Your task to perform on an android device: open app "AliExpress" (install if not already installed) Image 0: 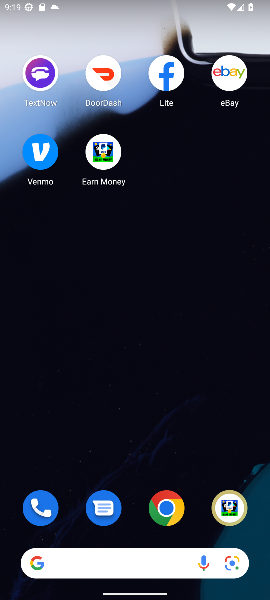
Step 0: press home button
Your task to perform on an android device: open app "AliExpress" (install if not already installed) Image 1: 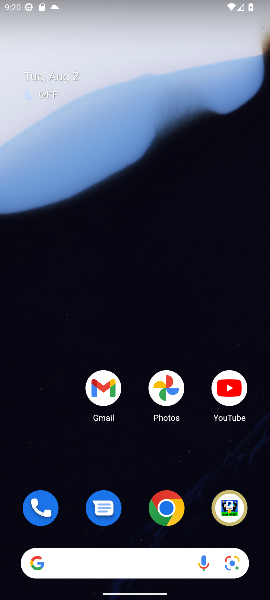
Step 1: drag from (105, 535) to (144, 42)
Your task to perform on an android device: open app "AliExpress" (install if not already installed) Image 2: 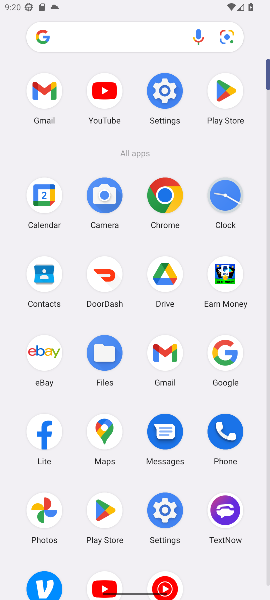
Step 2: click (225, 121)
Your task to perform on an android device: open app "AliExpress" (install if not already installed) Image 3: 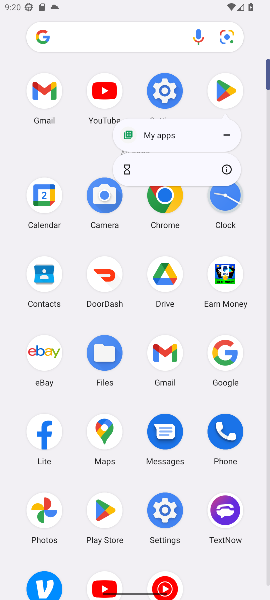
Step 3: click (231, 93)
Your task to perform on an android device: open app "AliExpress" (install if not already installed) Image 4: 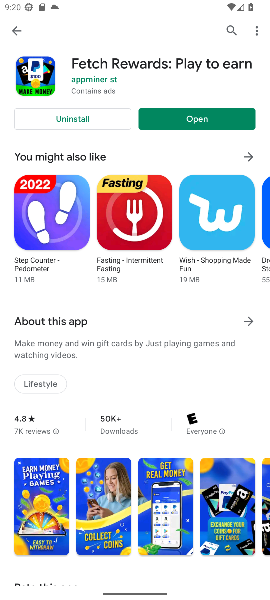
Step 4: click (20, 30)
Your task to perform on an android device: open app "AliExpress" (install if not already installed) Image 5: 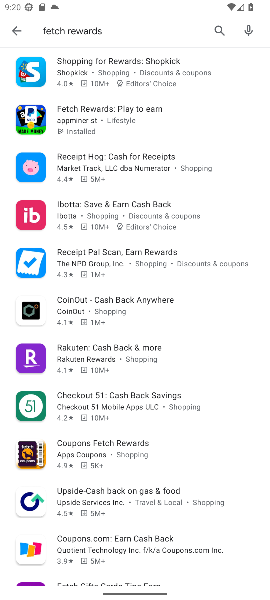
Step 5: click (17, 33)
Your task to perform on an android device: open app "AliExpress" (install if not already installed) Image 6: 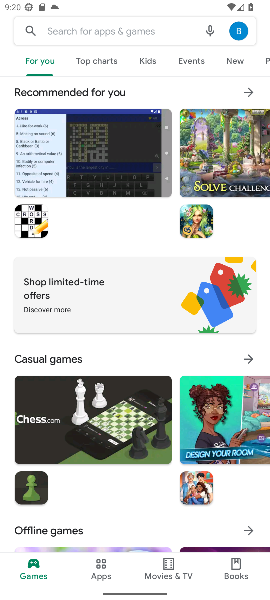
Step 6: click (56, 35)
Your task to perform on an android device: open app "AliExpress" (install if not already installed) Image 7: 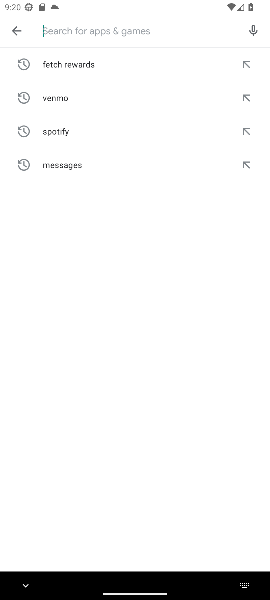
Step 7: type "AliExpress"
Your task to perform on an android device: open app "AliExpress" (install if not already installed) Image 8: 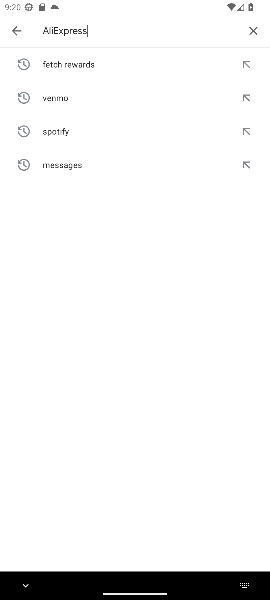
Step 8: type ""
Your task to perform on an android device: open app "AliExpress" (install if not already installed) Image 9: 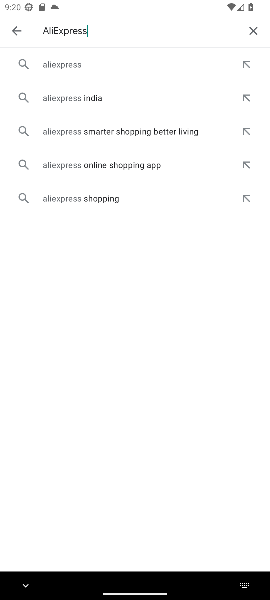
Step 9: click (86, 60)
Your task to perform on an android device: open app "AliExpress" (install if not already installed) Image 10: 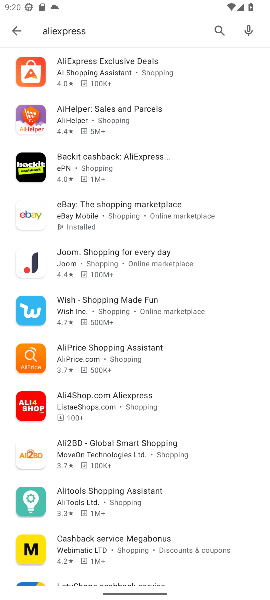
Step 10: click (93, 71)
Your task to perform on an android device: open app "AliExpress" (install if not already installed) Image 11: 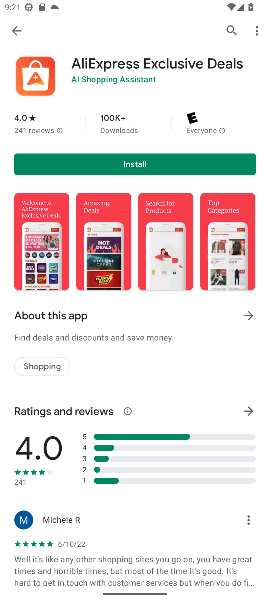
Step 11: click (100, 162)
Your task to perform on an android device: open app "AliExpress" (install if not already installed) Image 12: 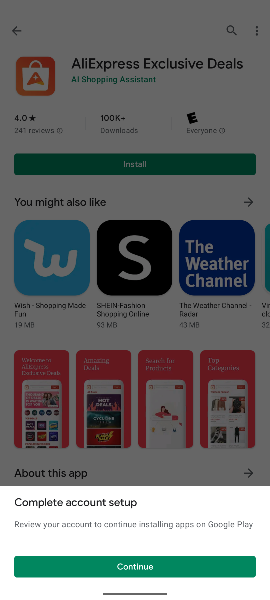
Step 12: click (115, 564)
Your task to perform on an android device: open app "AliExpress" (install if not already installed) Image 13: 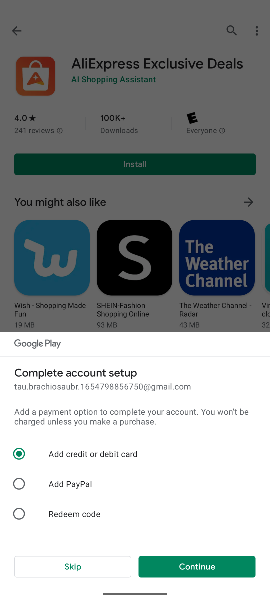
Step 13: click (73, 564)
Your task to perform on an android device: open app "AliExpress" (install if not already installed) Image 14: 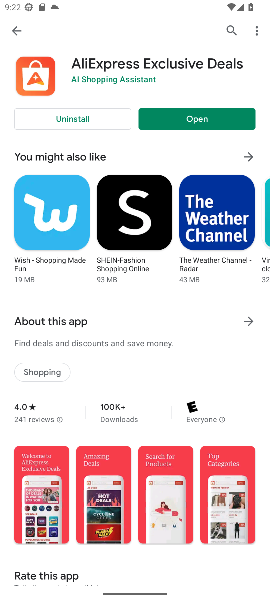
Step 14: click (191, 122)
Your task to perform on an android device: open app "AliExpress" (install if not already installed) Image 15: 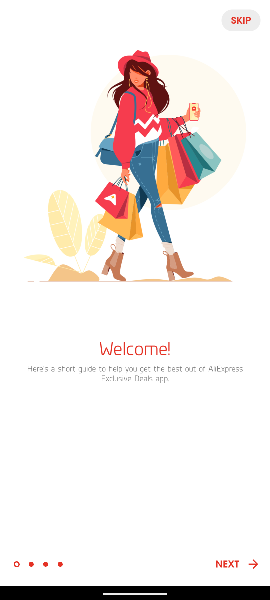
Step 15: task complete